Your task to perform on an android device: open app "Venmo" Image 0: 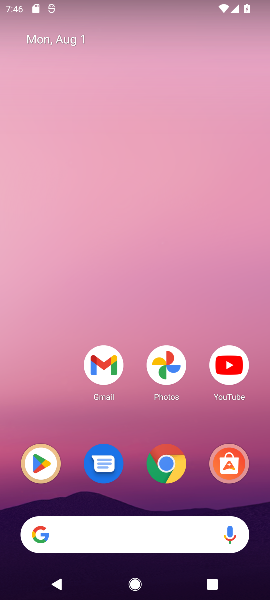
Step 0: click (46, 461)
Your task to perform on an android device: open app "Venmo" Image 1: 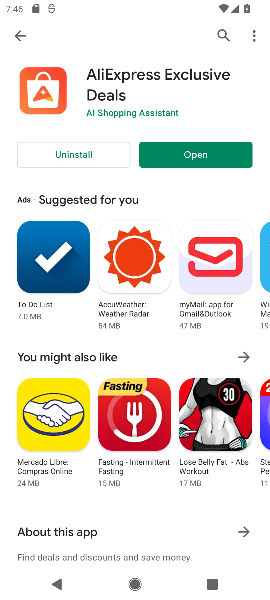
Step 1: press home button
Your task to perform on an android device: open app "Venmo" Image 2: 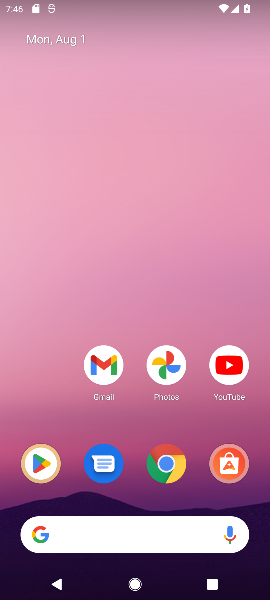
Step 2: click (39, 475)
Your task to perform on an android device: open app "Venmo" Image 3: 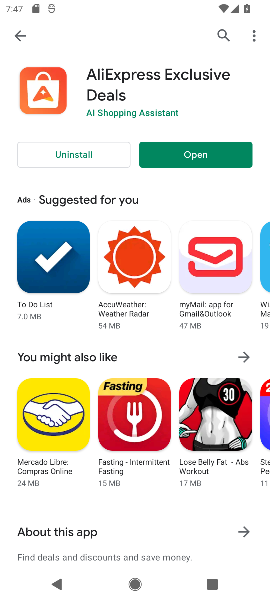
Step 3: click (16, 36)
Your task to perform on an android device: open app "Venmo" Image 4: 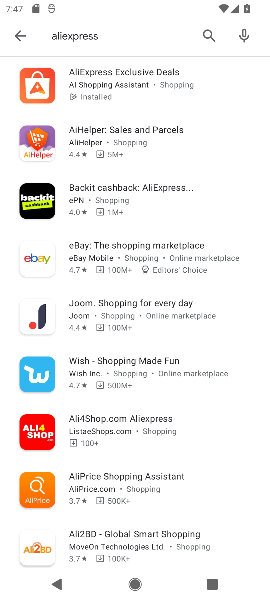
Step 4: click (211, 39)
Your task to perform on an android device: open app "Venmo" Image 5: 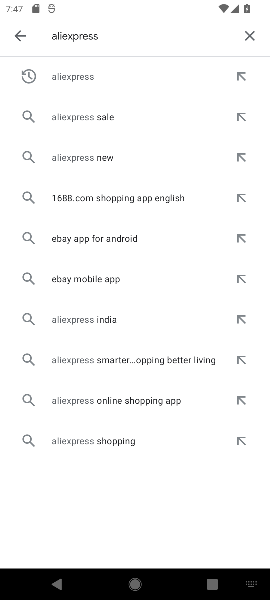
Step 5: type "venmo"
Your task to perform on an android device: open app "Venmo" Image 6: 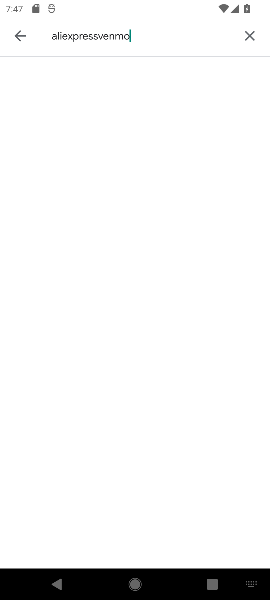
Step 6: click (248, 42)
Your task to perform on an android device: open app "Venmo" Image 7: 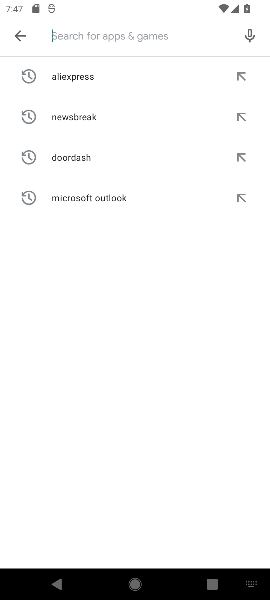
Step 7: type "venmo"
Your task to perform on an android device: open app "Venmo" Image 8: 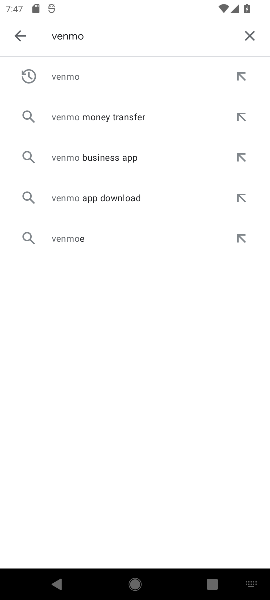
Step 8: click (74, 64)
Your task to perform on an android device: open app "Venmo" Image 9: 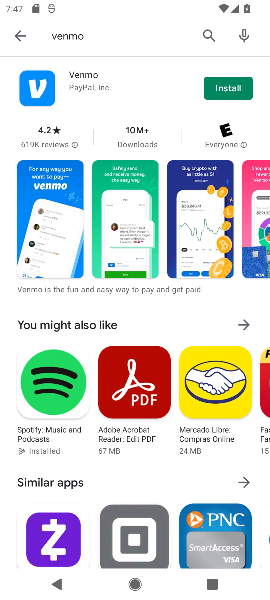
Step 9: click (235, 83)
Your task to perform on an android device: open app "Venmo" Image 10: 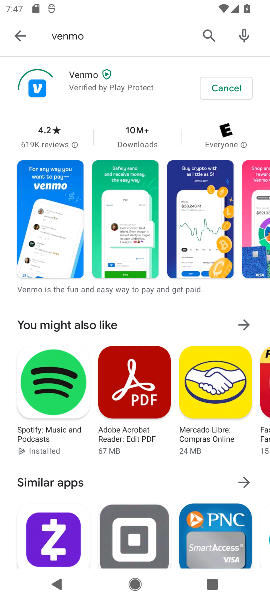
Step 10: task complete